Your task to perform on an android device: Open calendar and show me the third week of next month Image 0: 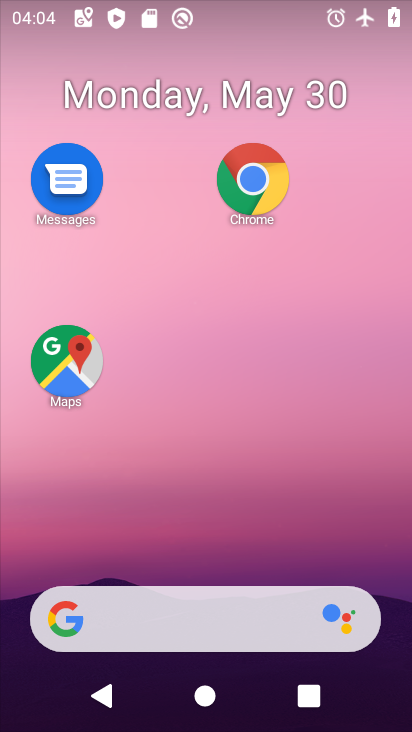
Step 0: drag from (253, 553) to (41, 11)
Your task to perform on an android device: Open calendar and show me the third week of next month Image 1: 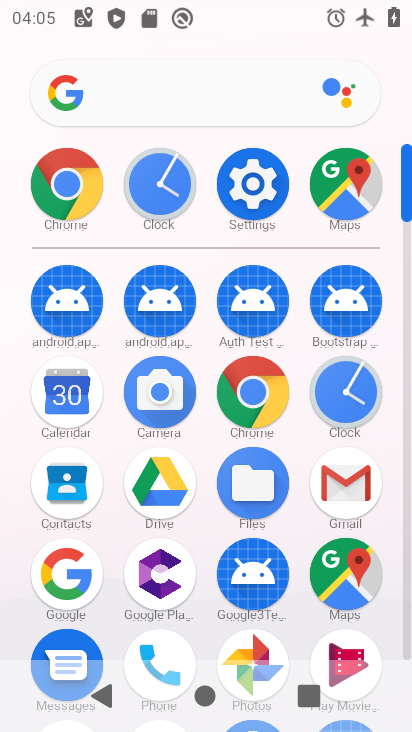
Step 1: click (70, 385)
Your task to perform on an android device: Open calendar and show me the third week of next month Image 2: 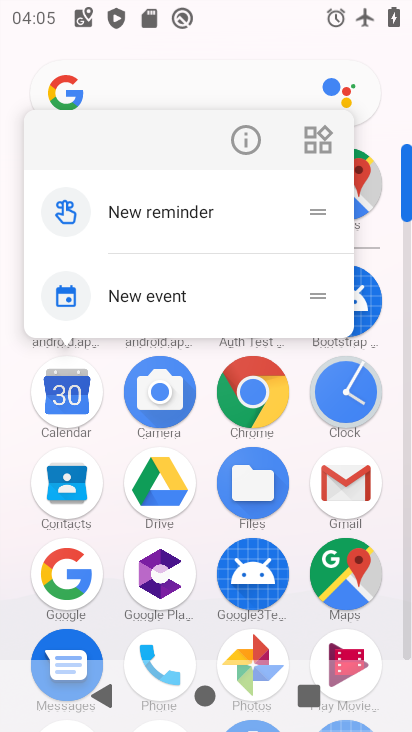
Step 2: click (69, 417)
Your task to perform on an android device: Open calendar and show me the third week of next month Image 3: 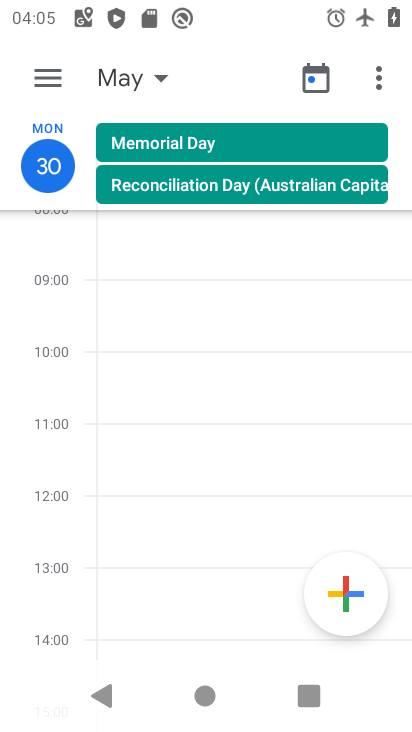
Step 3: click (121, 74)
Your task to perform on an android device: Open calendar and show me the third week of next month Image 4: 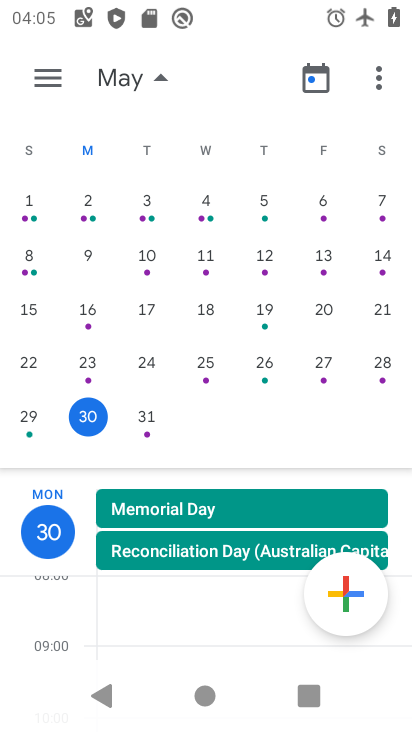
Step 4: drag from (311, 282) to (28, 223)
Your task to perform on an android device: Open calendar and show me the third week of next month Image 5: 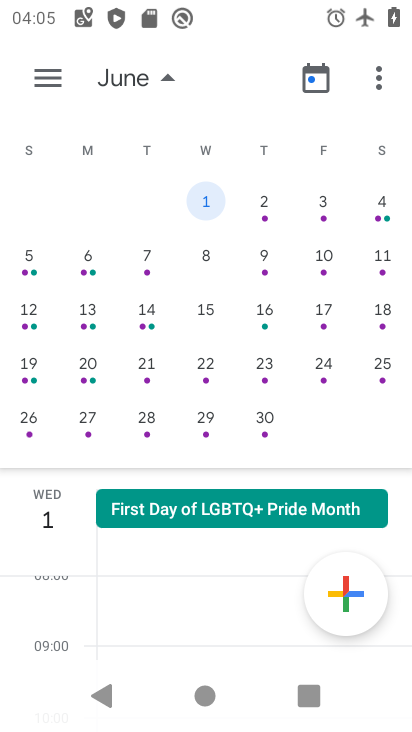
Step 5: click (31, 369)
Your task to perform on an android device: Open calendar and show me the third week of next month Image 6: 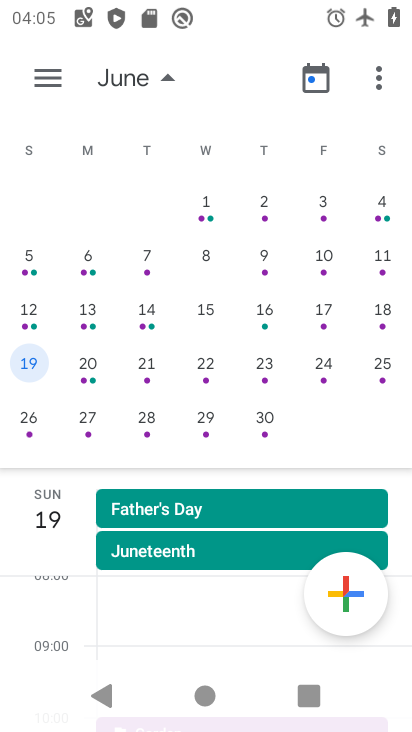
Step 6: click (33, 72)
Your task to perform on an android device: Open calendar and show me the third week of next month Image 7: 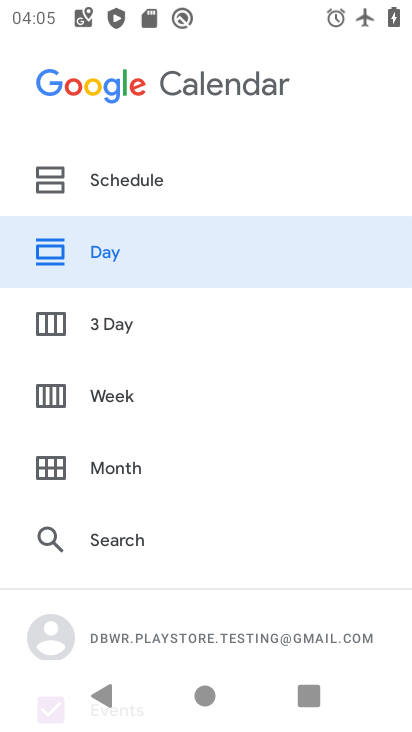
Step 7: click (102, 400)
Your task to perform on an android device: Open calendar and show me the third week of next month Image 8: 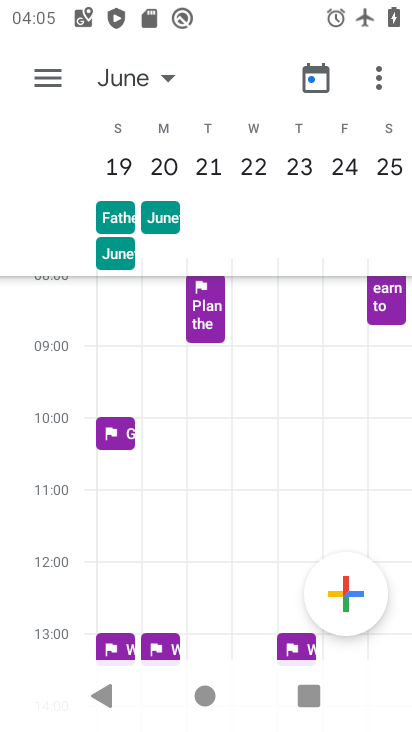
Step 8: task complete